Your task to perform on an android device: add a contact in the contacts app Image 0: 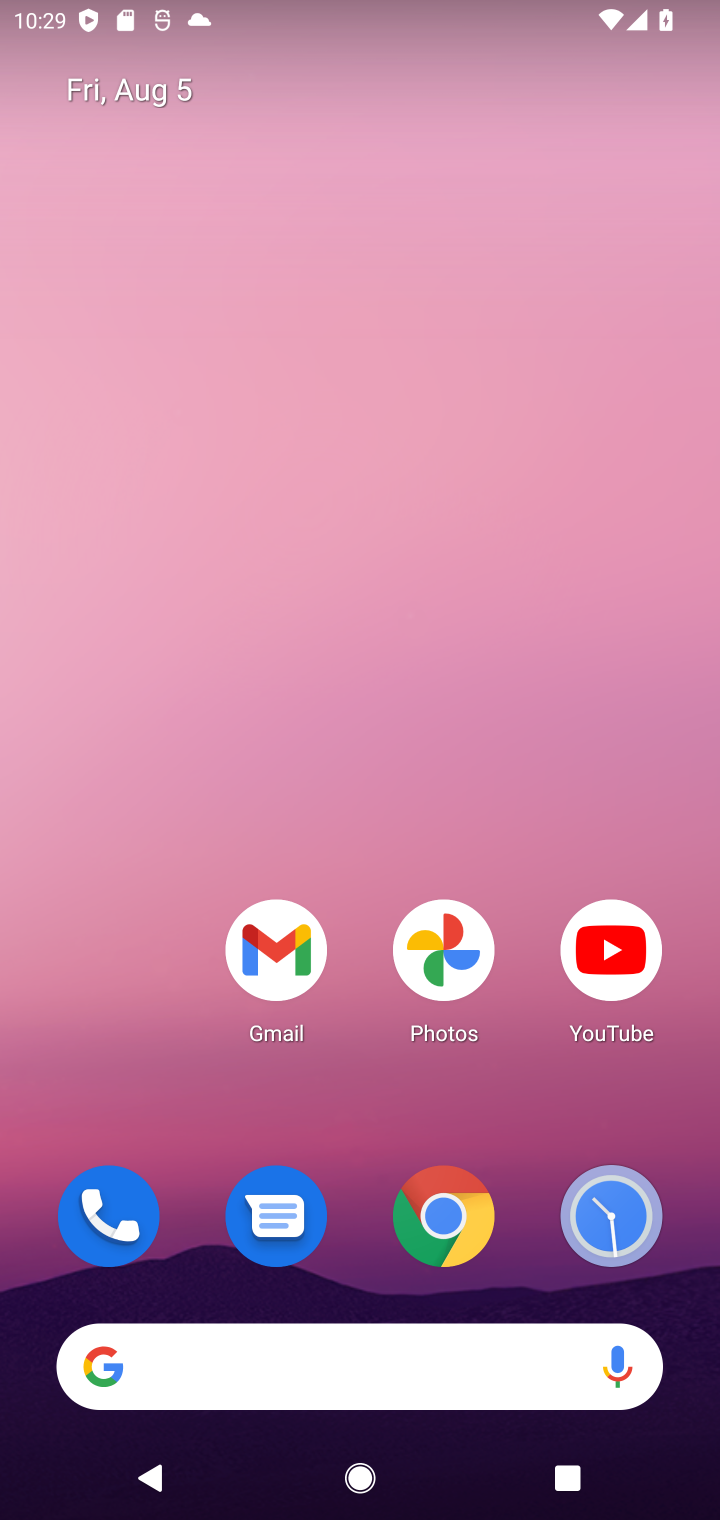
Step 0: drag from (445, 1346) to (459, 168)
Your task to perform on an android device: add a contact in the contacts app Image 1: 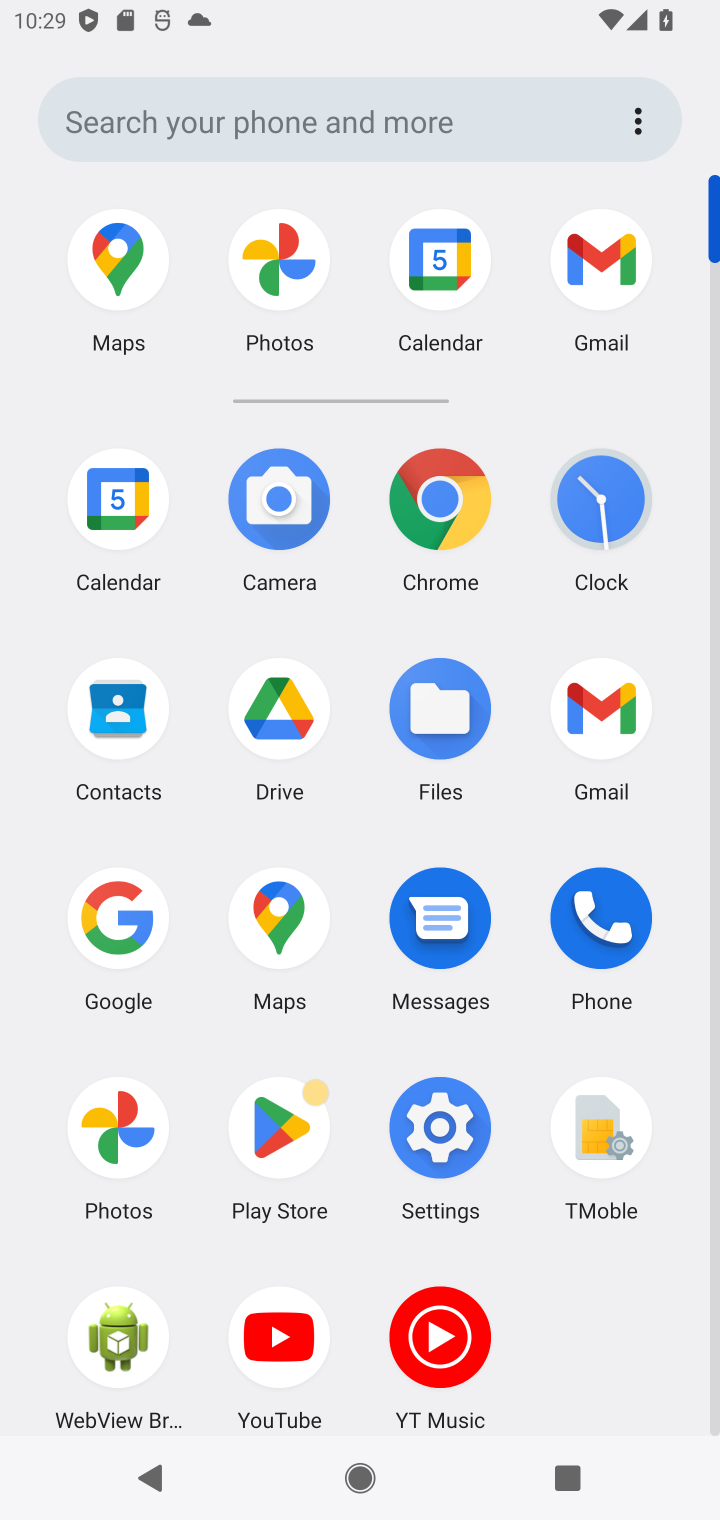
Step 1: click (120, 724)
Your task to perform on an android device: add a contact in the contacts app Image 2: 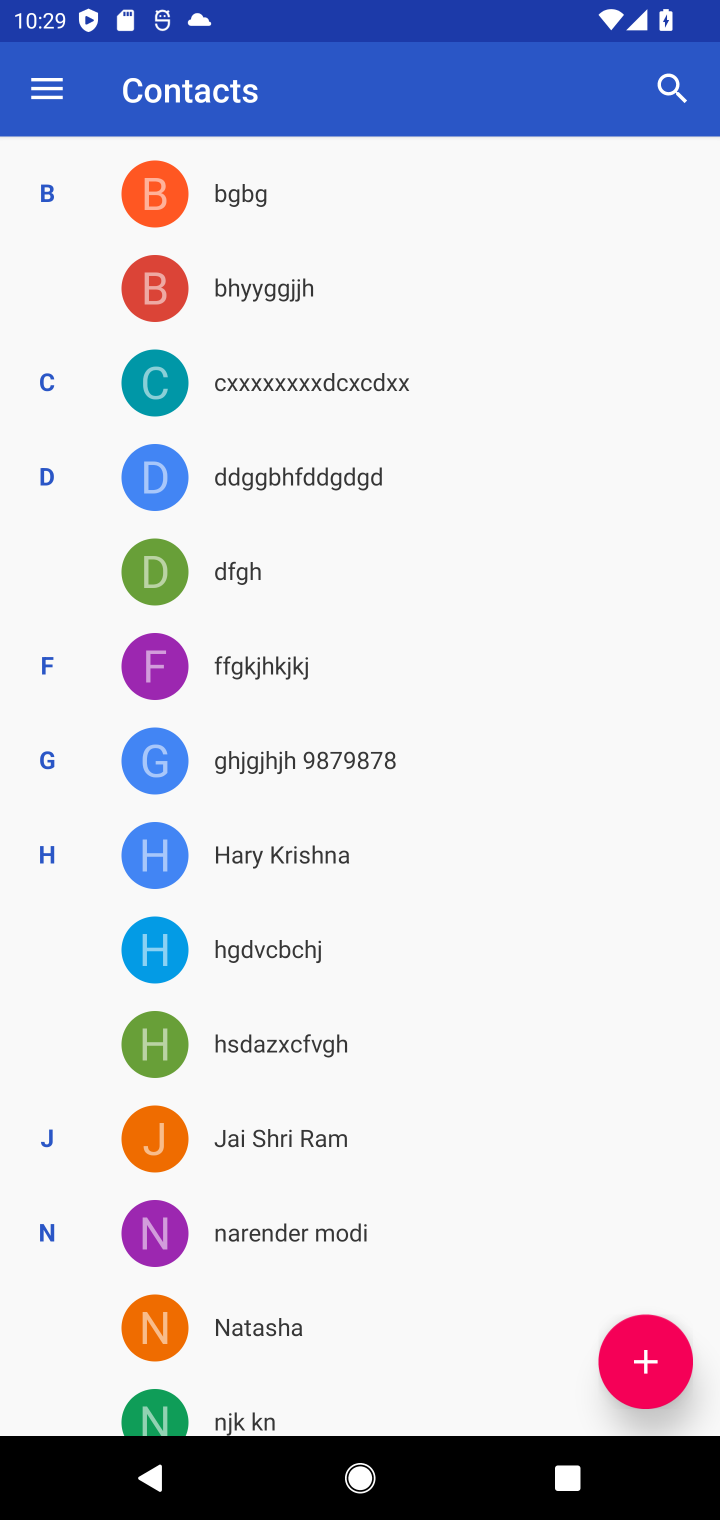
Step 2: click (652, 1374)
Your task to perform on an android device: add a contact in the contacts app Image 3: 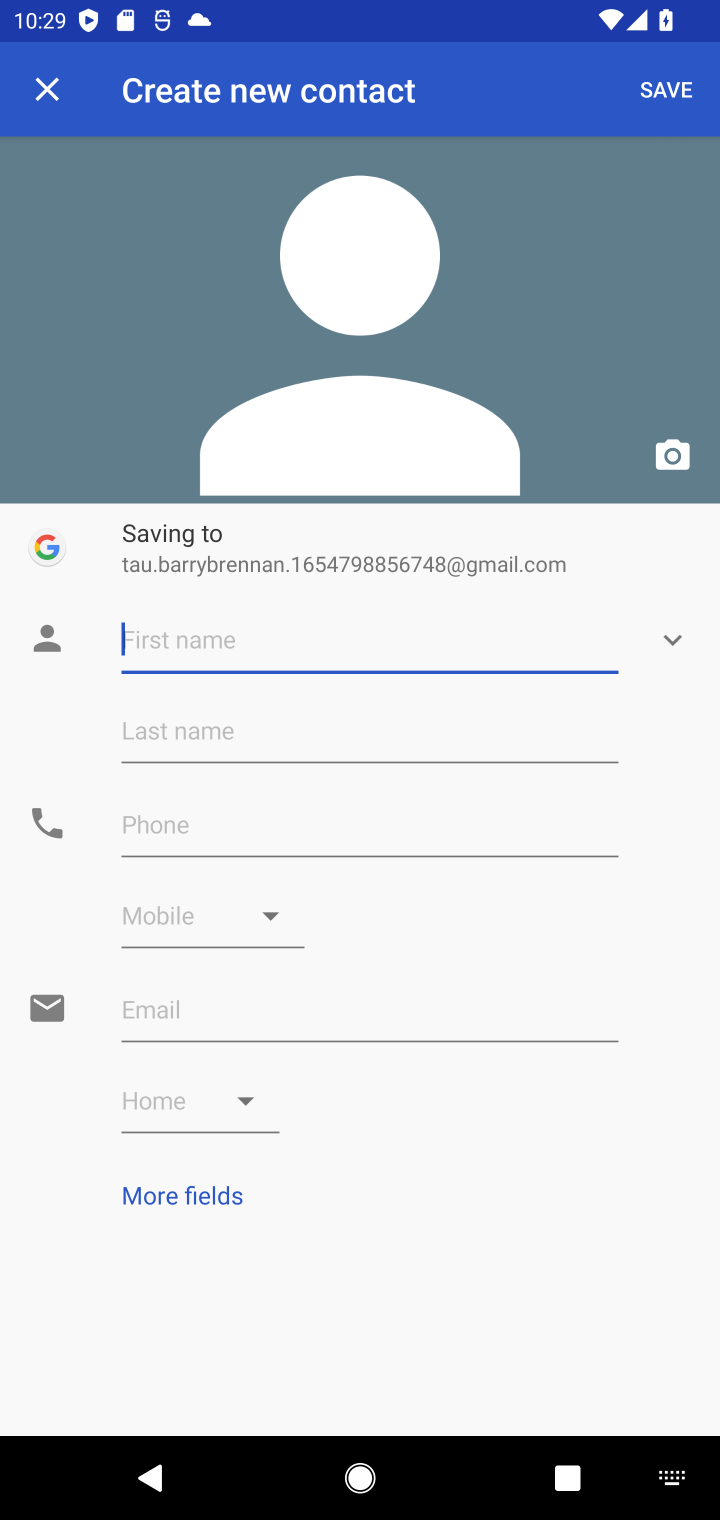
Step 3: type "khkjgjg"
Your task to perform on an android device: add a contact in the contacts app Image 4: 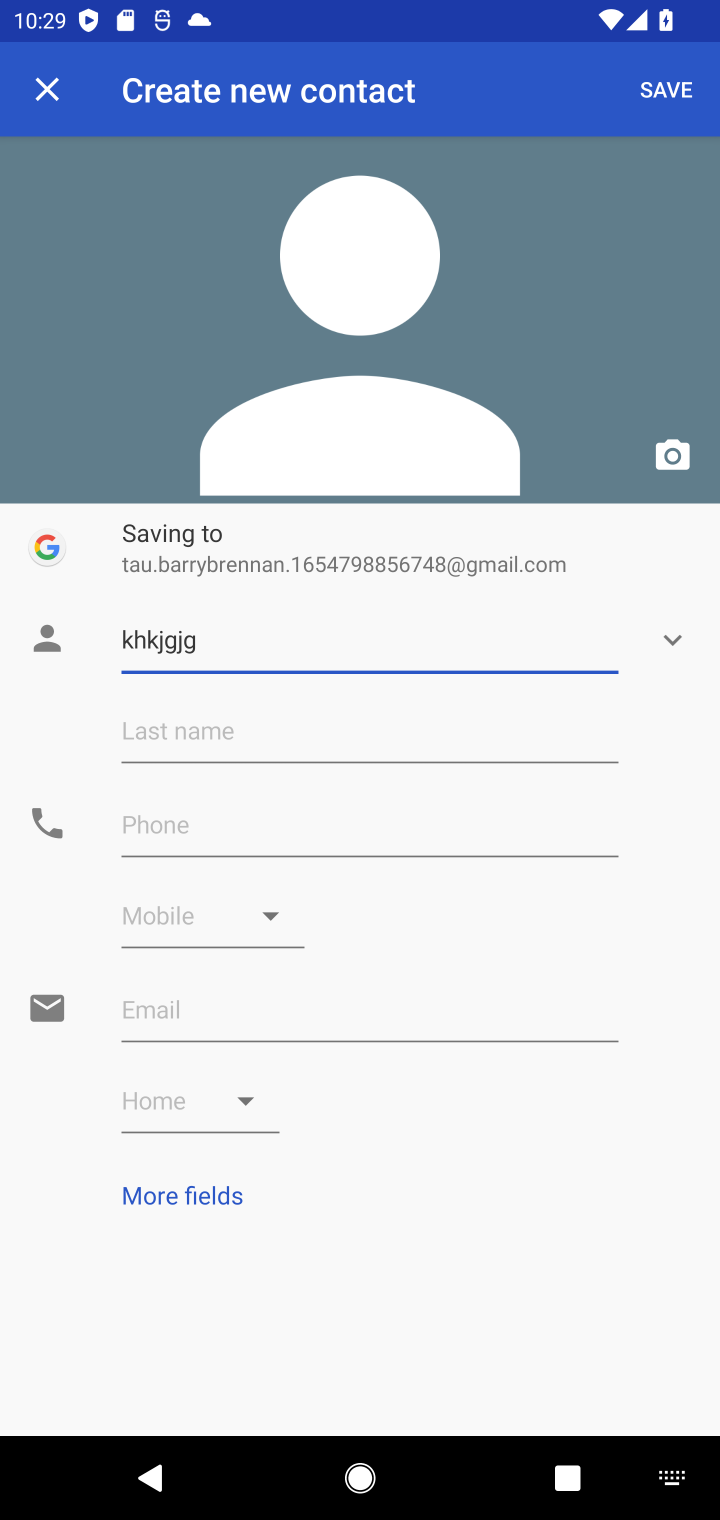
Step 4: click (391, 816)
Your task to perform on an android device: add a contact in the contacts app Image 5: 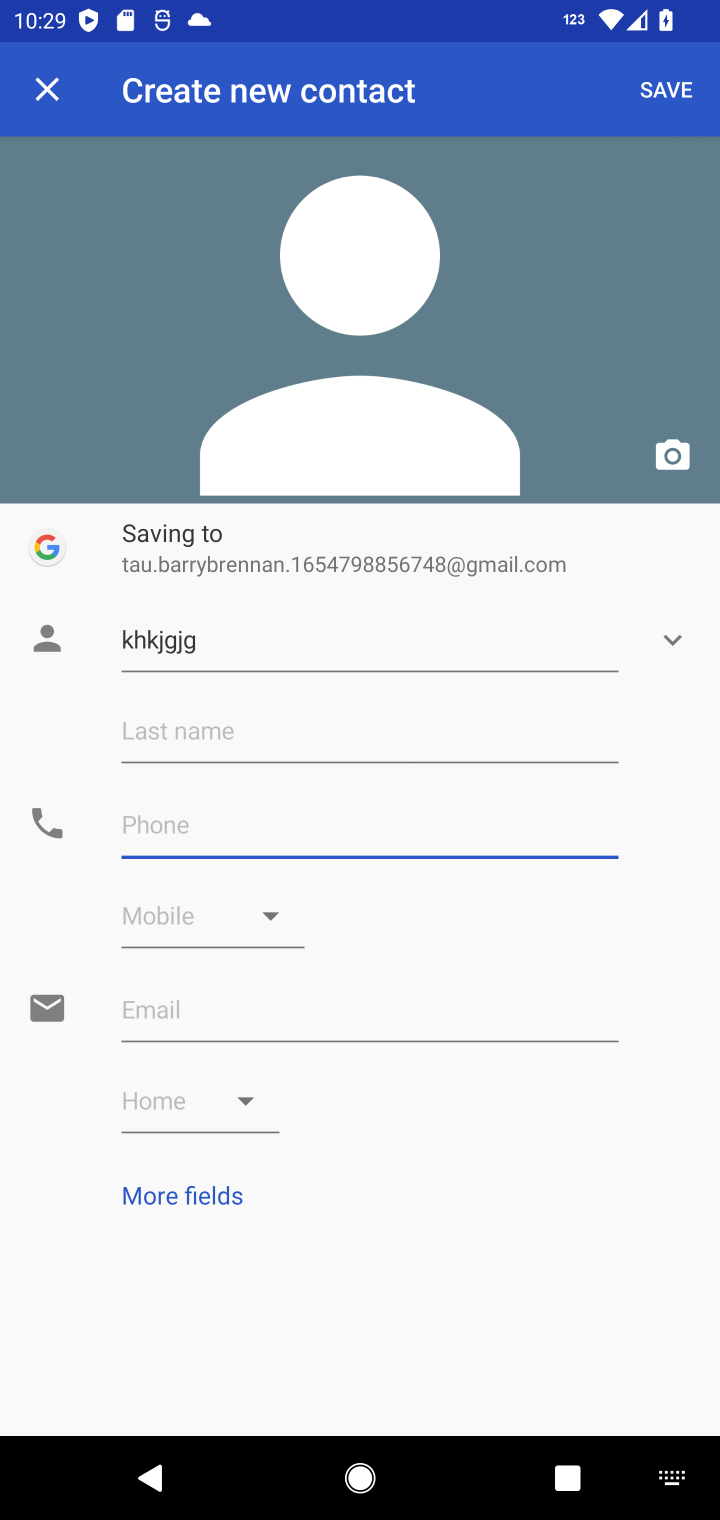
Step 5: type "98876788766"
Your task to perform on an android device: add a contact in the contacts app Image 6: 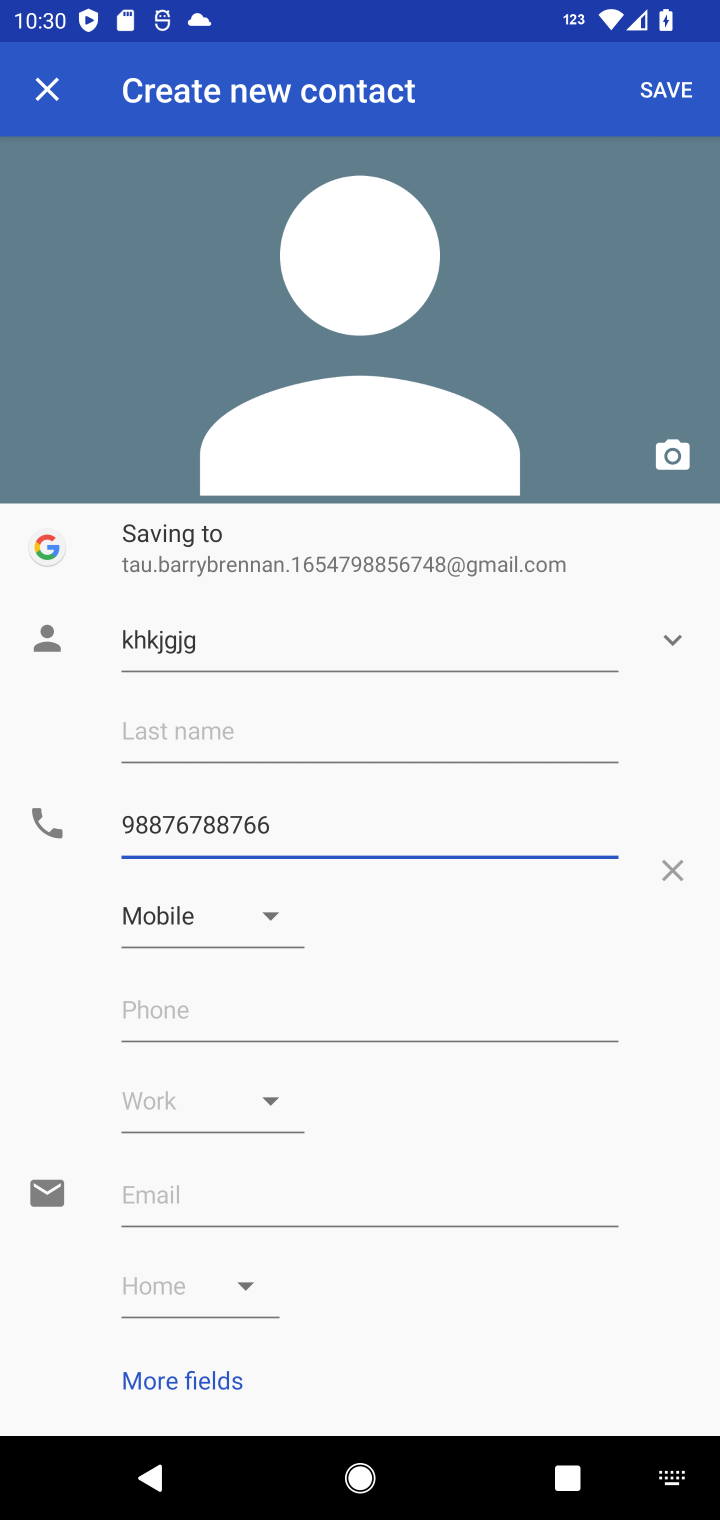
Step 6: click (672, 78)
Your task to perform on an android device: add a contact in the contacts app Image 7: 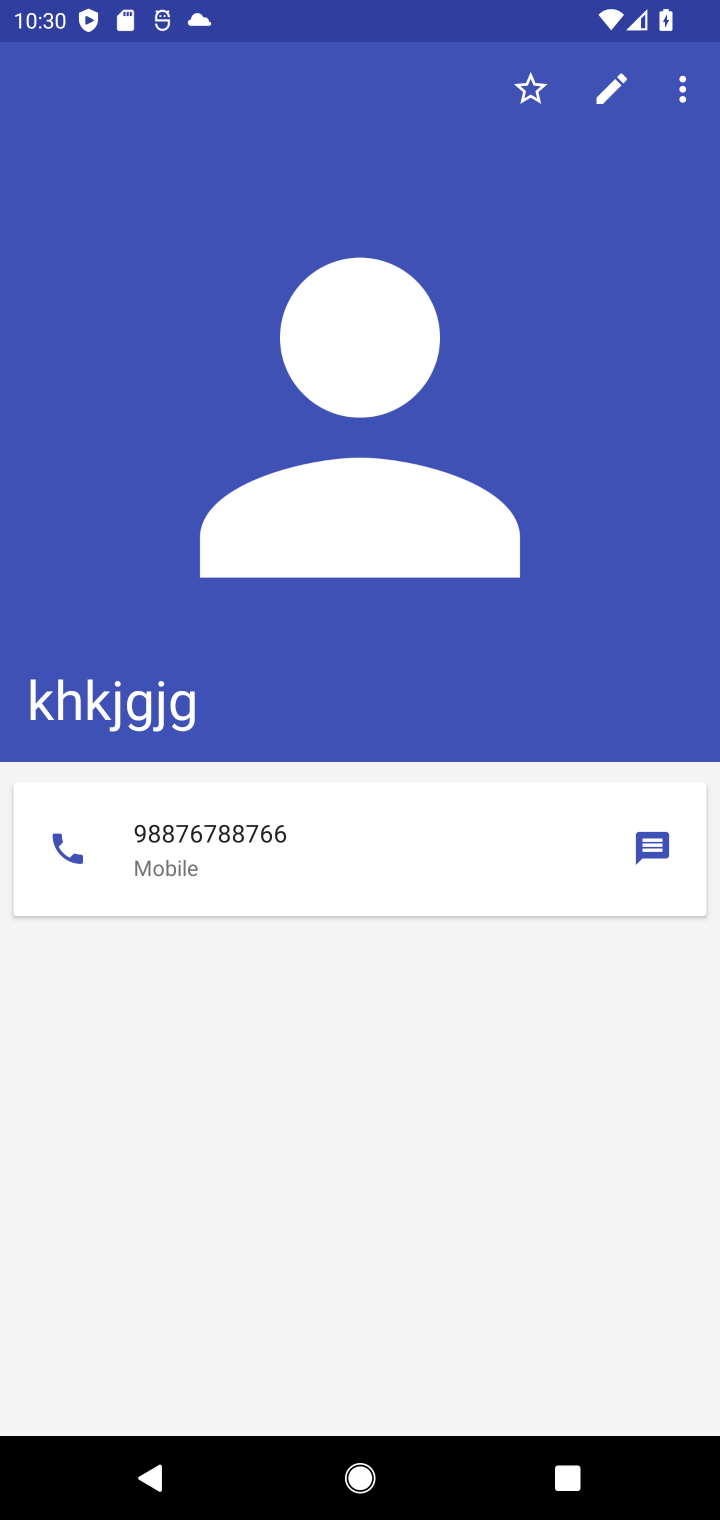
Step 7: task complete